Your task to perform on an android device: check out phone information Image 0: 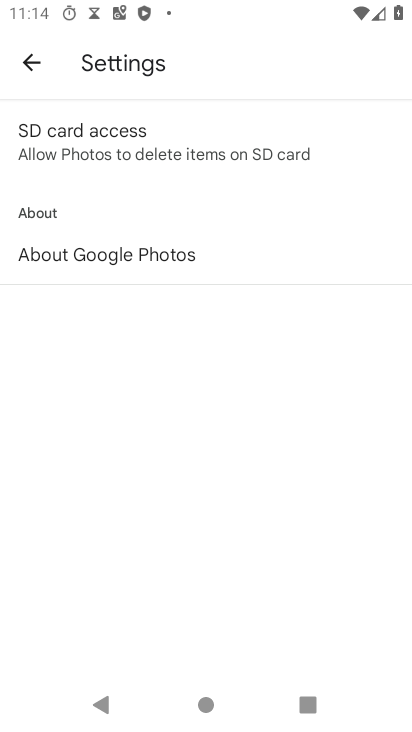
Step 0: press home button
Your task to perform on an android device: check out phone information Image 1: 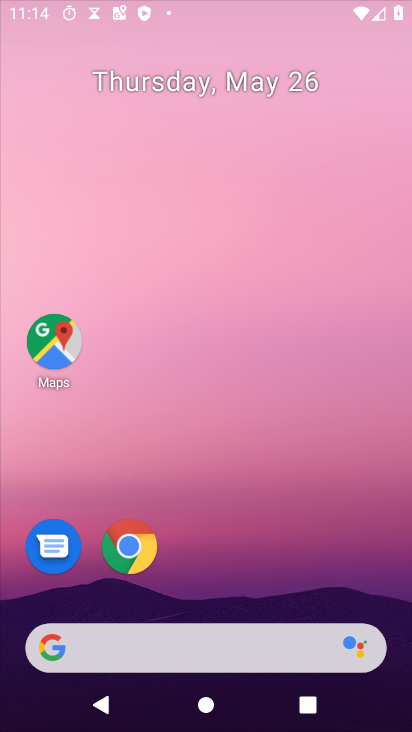
Step 1: drag from (348, 544) to (348, 145)
Your task to perform on an android device: check out phone information Image 2: 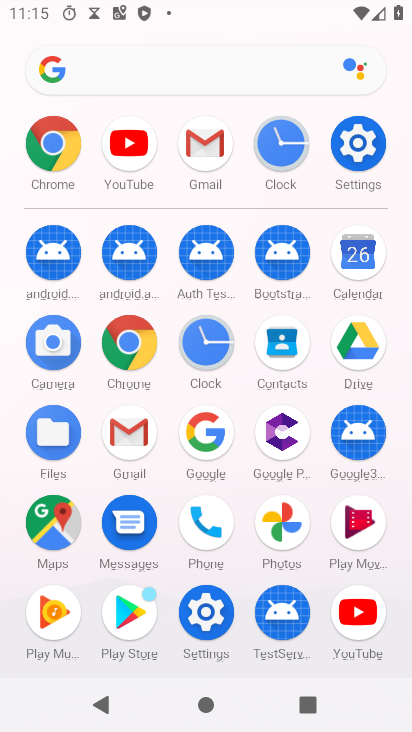
Step 2: click (201, 562)
Your task to perform on an android device: check out phone information Image 3: 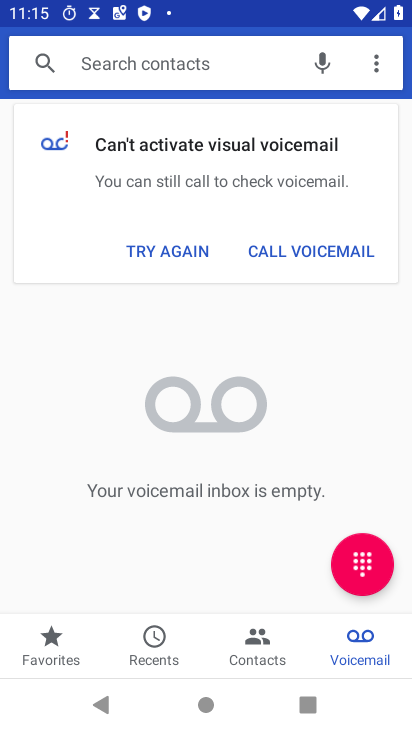
Step 3: click (381, 77)
Your task to perform on an android device: check out phone information Image 4: 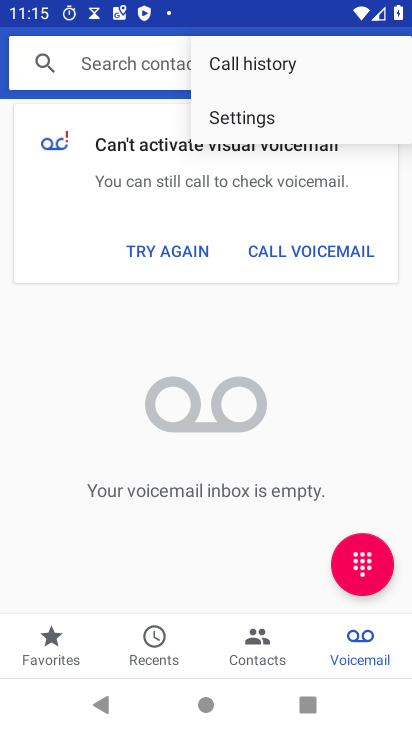
Step 4: click (271, 126)
Your task to perform on an android device: check out phone information Image 5: 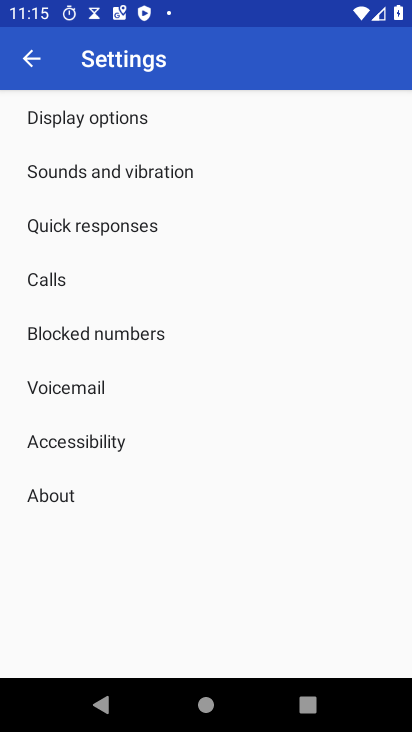
Step 5: task complete